Your task to perform on an android device: Open notification settings Image 0: 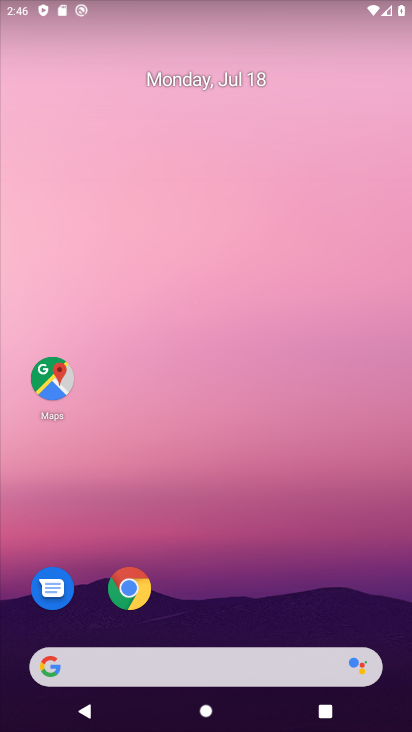
Step 0: drag from (225, 618) to (224, 293)
Your task to perform on an android device: Open notification settings Image 1: 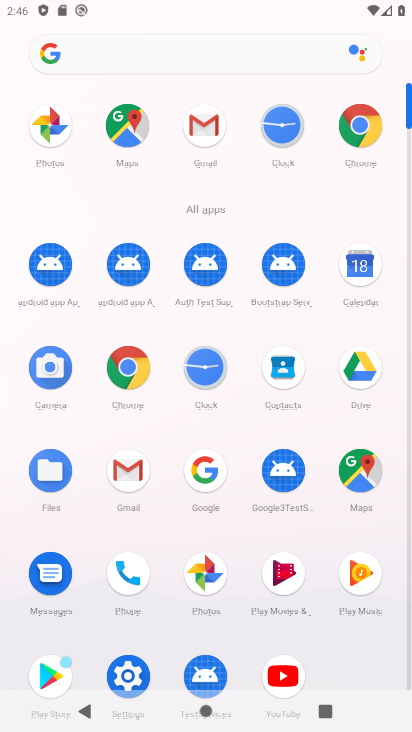
Step 1: click (117, 668)
Your task to perform on an android device: Open notification settings Image 2: 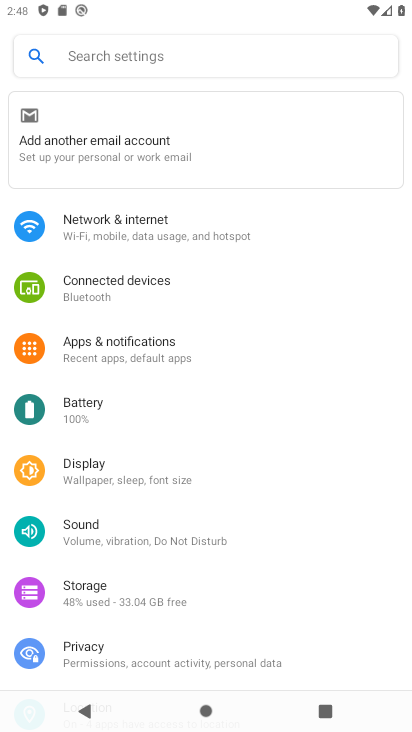
Step 2: click (240, 335)
Your task to perform on an android device: Open notification settings Image 3: 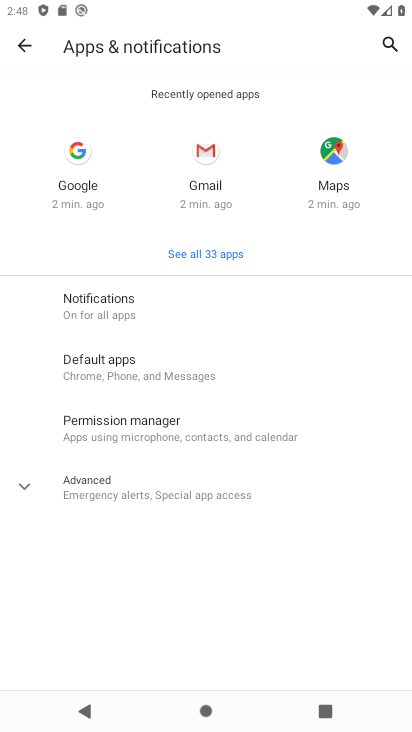
Step 3: task complete